Your task to perform on an android device: Open settings on Google Maps Image 0: 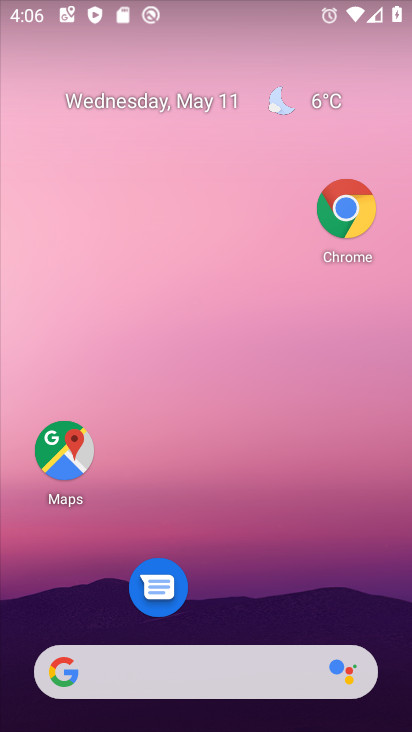
Step 0: click (61, 437)
Your task to perform on an android device: Open settings on Google Maps Image 1: 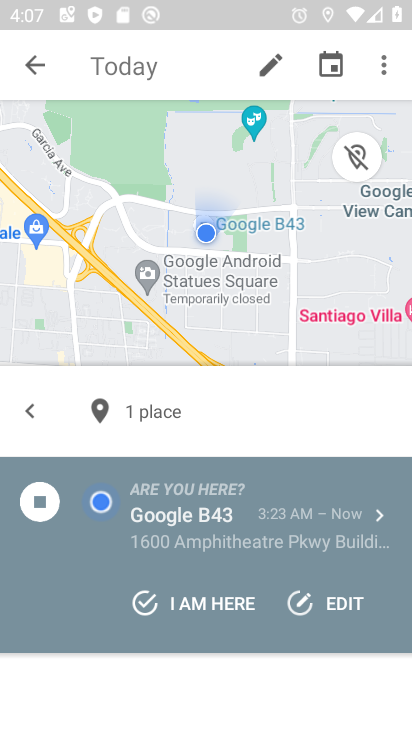
Step 1: click (31, 59)
Your task to perform on an android device: Open settings on Google Maps Image 2: 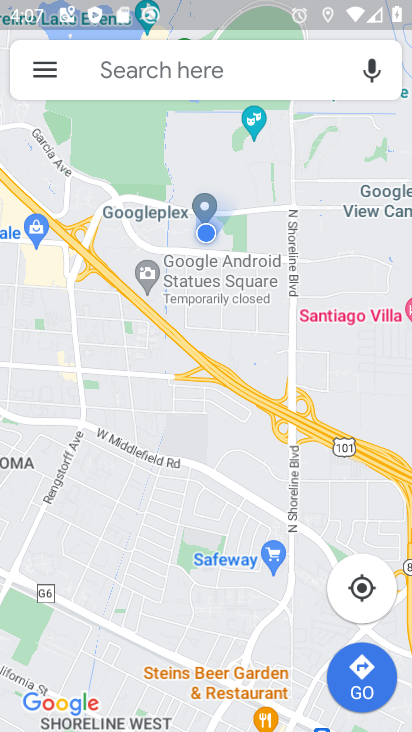
Step 2: click (42, 72)
Your task to perform on an android device: Open settings on Google Maps Image 3: 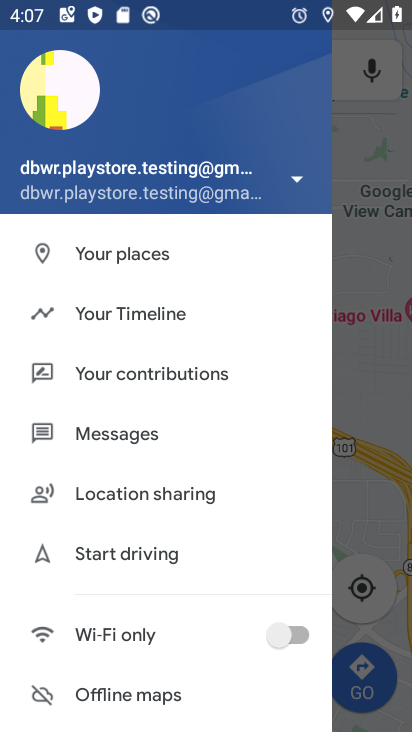
Step 3: drag from (171, 611) to (195, 344)
Your task to perform on an android device: Open settings on Google Maps Image 4: 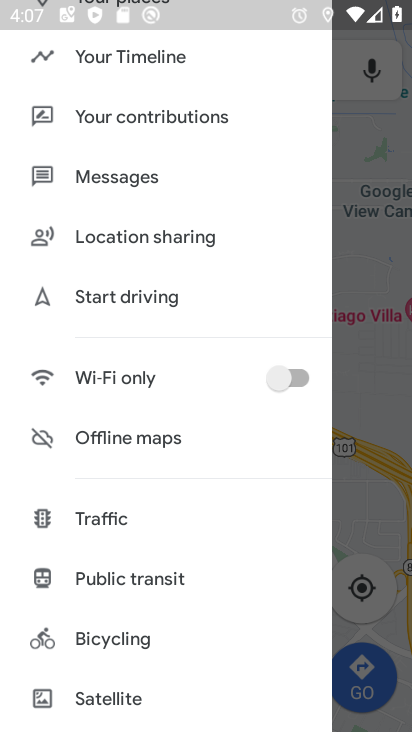
Step 4: drag from (224, 591) to (212, 345)
Your task to perform on an android device: Open settings on Google Maps Image 5: 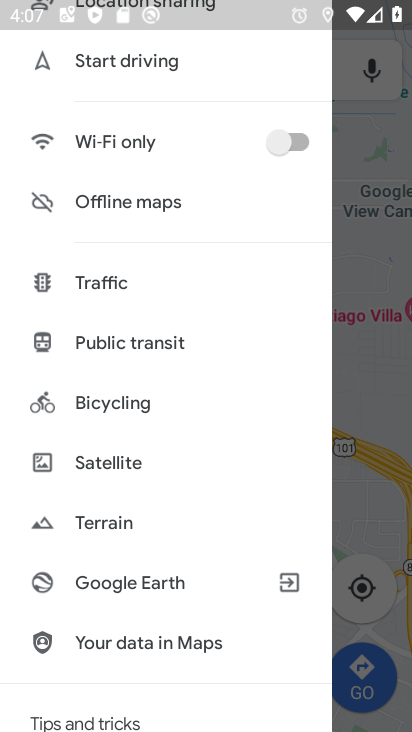
Step 5: drag from (133, 700) to (193, 289)
Your task to perform on an android device: Open settings on Google Maps Image 6: 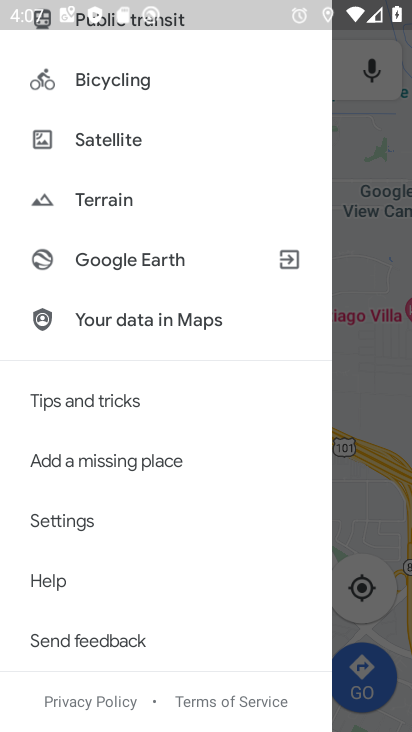
Step 6: click (83, 527)
Your task to perform on an android device: Open settings on Google Maps Image 7: 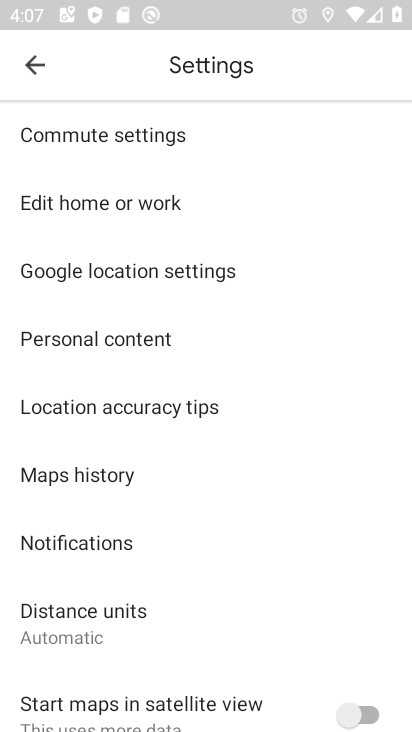
Step 7: task complete